Your task to perform on an android device: turn pop-ups off in chrome Image 0: 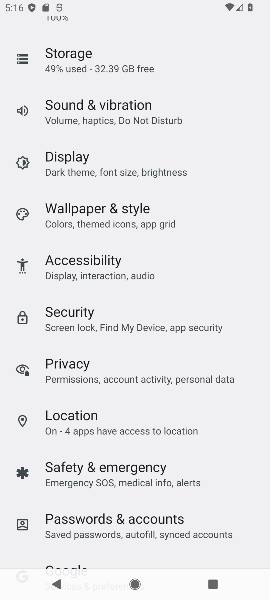
Step 0: press home button
Your task to perform on an android device: turn pop-ups off in chrome Image 1: 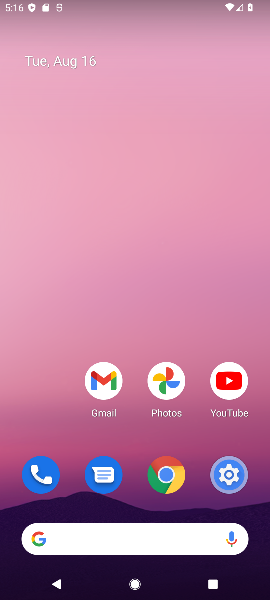
Step 1: drag from (248, 517) to (147, 51)
Your task to perform on an android device: turn pop-ups off in chrome Image 2: 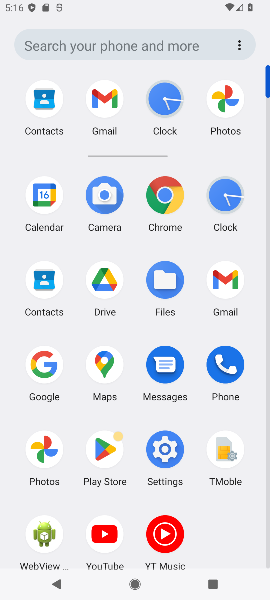
Step 2: click (170, 191)
Your task to perform on an android device: turn pop-ups off in chrome Image 3: 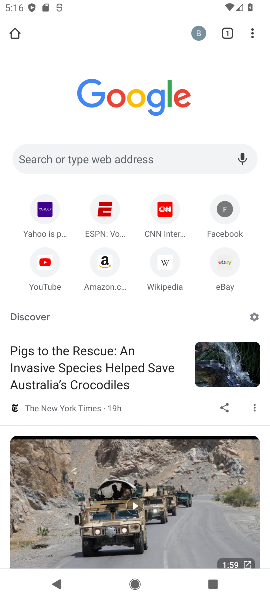
Step 3: click (251, 28)
Your task to perform on an android device: turn pop-ups off in chrome Image 4: 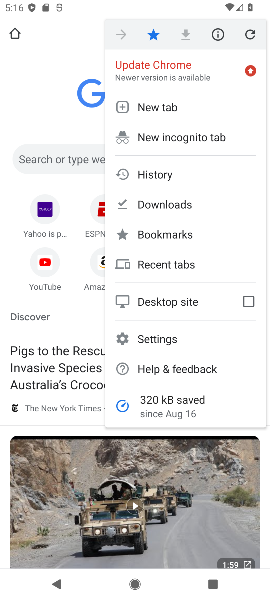
Step 4: click (154, 341)
Your task to perform on an android device: turn pop-ups off in chrome Image 5: 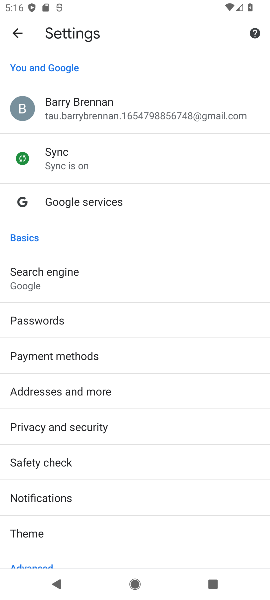
Step 5: drag from (65, 472) to (76, 159)
Your task to perform on an android device: turn pop-ups off in chrome Image 6: 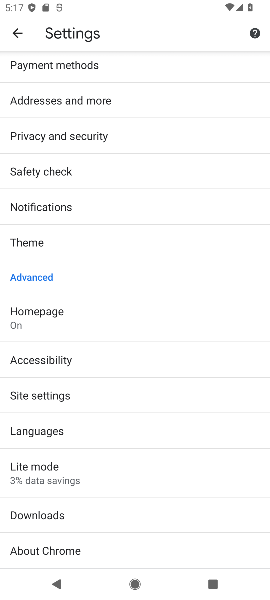
Step 6: click (87, 404)
Your task to perform on an android device: turn pop-ups off in chrome Image 7: 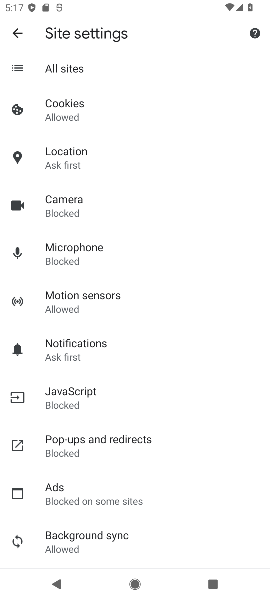
Step 7: click (79, 432)
Your task to perform on an android device: turn pop-ups off in chrome Image 8: 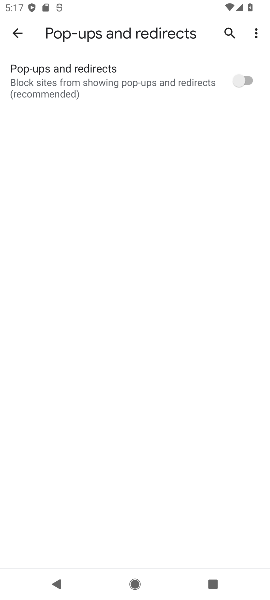
Step 8: task complete